Your task to perform on an android device: toggle show notifications on the lock screen Image 0: 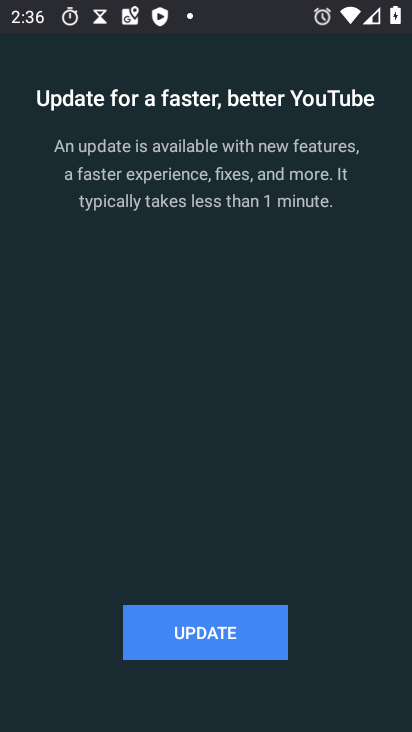
Step 0: press home button
Your task to perform on an android device: toggle show notifications on the lock screen Image 1: 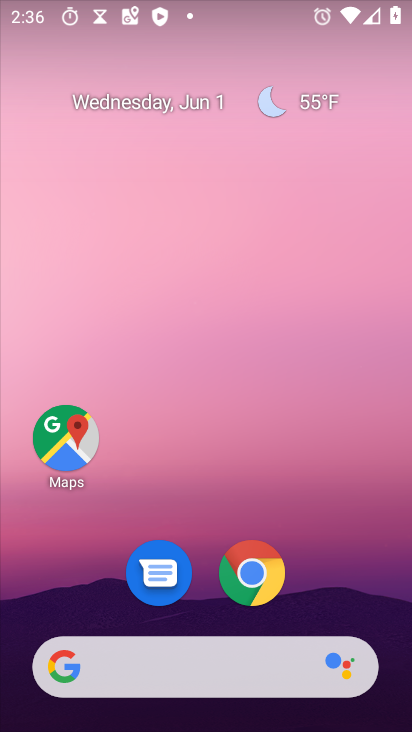
Step 1: drag from (316, 473) to (297, 21)
Your task to perform on an android device: toggle show notifications on the lock screen Image 2: 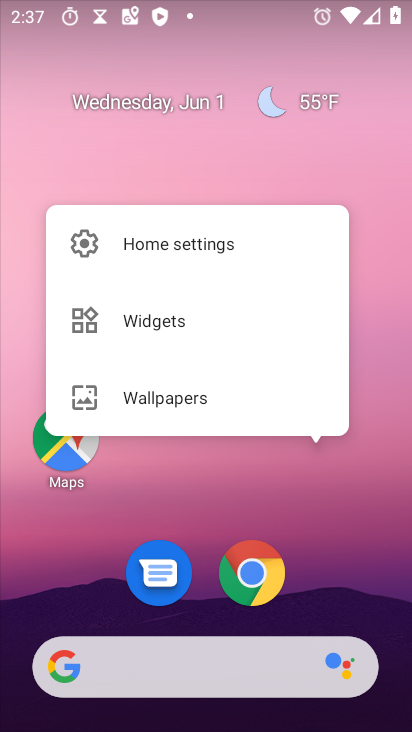
Step 2: click (333, 464)
Your task to perform on an android device: toggle show notifications on the lock screen Image 3: 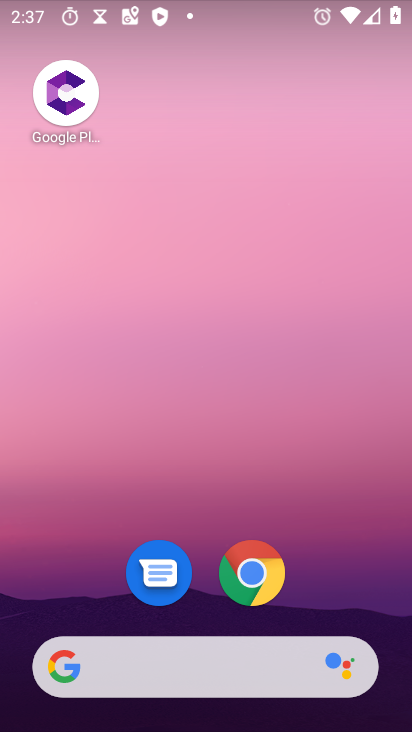
Step 3: drag from (357, 571) to (365, 62)
Your task to perform on an android device: toggle show notifications on the lock screen Image 4: 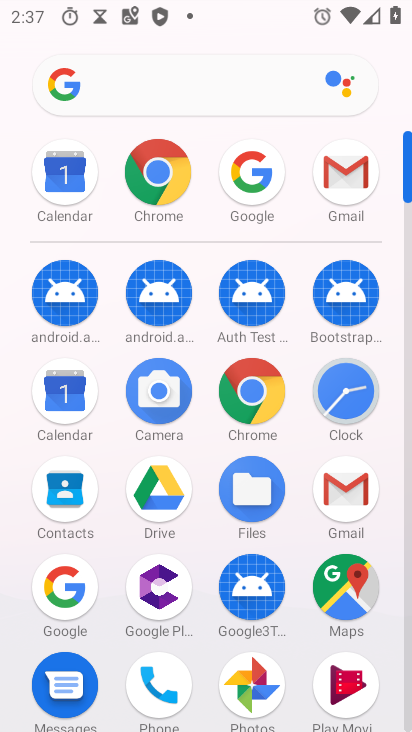
Step 4: drag from (376, 372) to (409, 146)
Your task to perform on an android device: toggle show notifications on the lock screen Image 5: 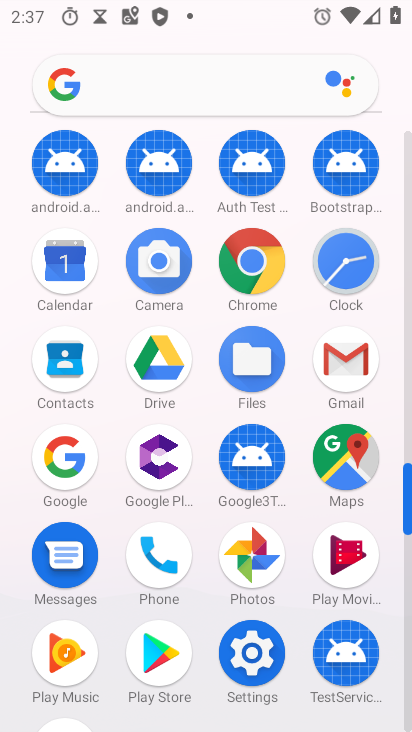
Step 5: click (273, 707)
Your task to perform on an android device: toggle show notifications on the lock screen Image 6: 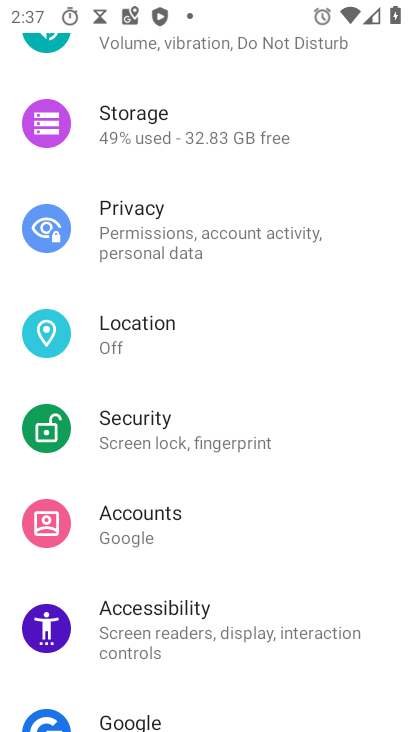
Step 6: drag from (182, 319) to (262, 606)
Your task to perform on an android device: toggle show notifications on the lock screen Image 7: 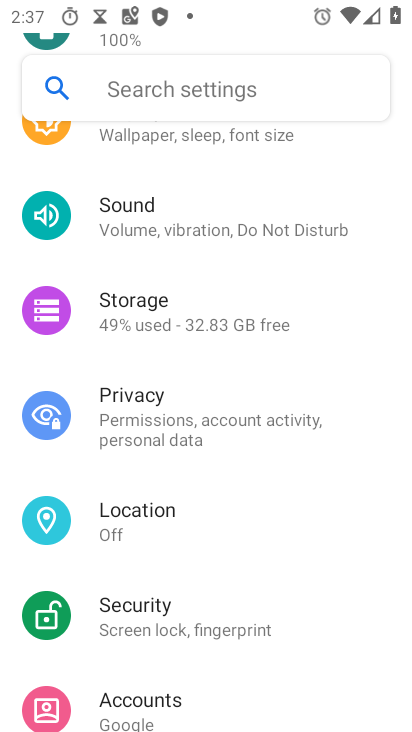
Step 7: drag from (226, 158) to (253, 641)
Your task to perform on an android device: toggle show notifications on the lock screen Image 8: 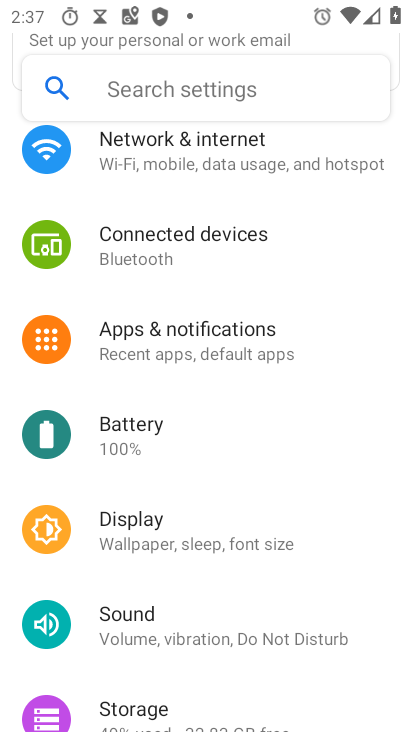
Step 8: click (235, 329)
Your task to perform on an android device: toggle show notifications on the lock screen Image 9: 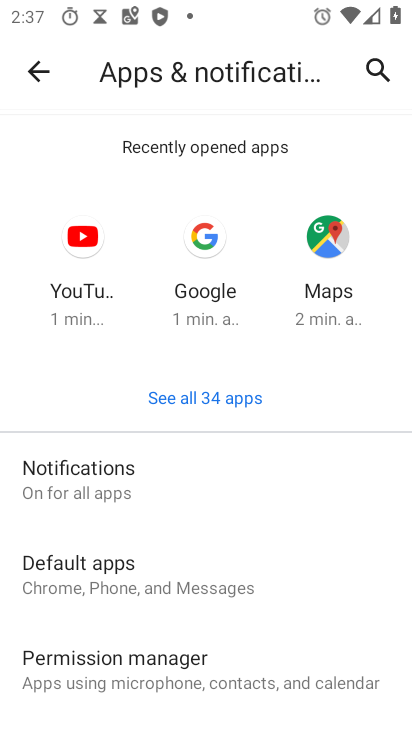
Step 9: click (99, 485)
Your task to perform on an android device: toggle show notifications on the lock screen Image 10: 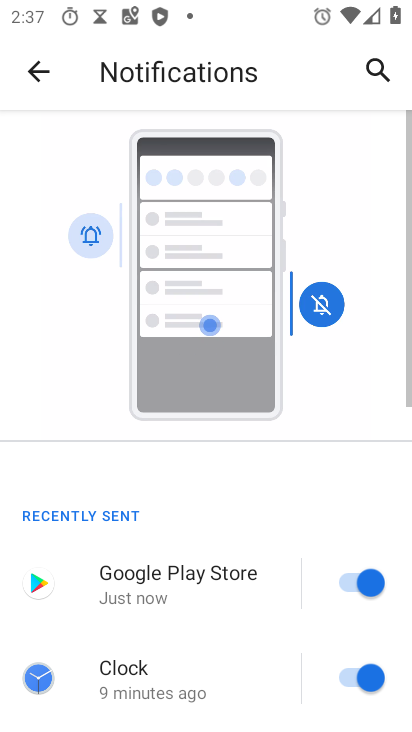
Step 10: drag from (229, 694) to (266, 230)
Your task to perform on an android device: toggle show notifications on the lock screen Image 11: 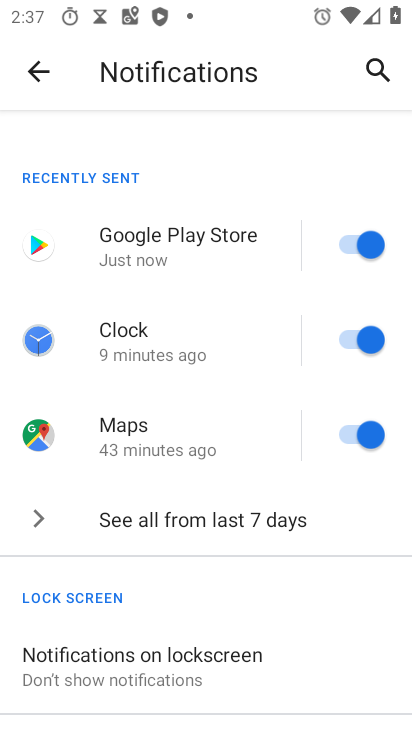
Step 11: drag from (190, 615) to (232, 189)
Your task to perform on an android device: toggle show notifications on the lock screen Image 12: 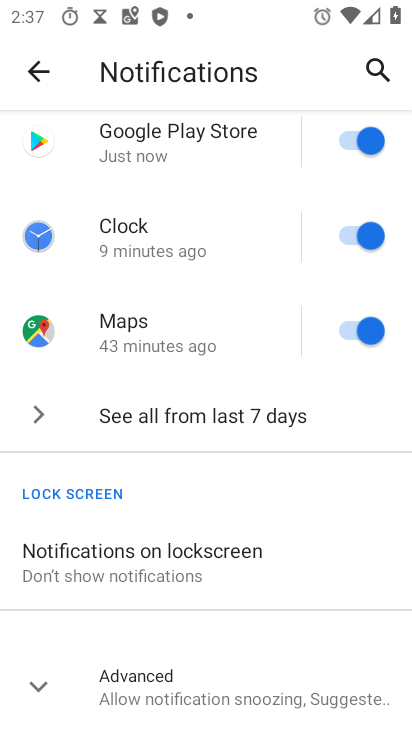
Step 12: click (155, 582)
Your task to perform on an android device: toggle show notifications on the lock screen Image 13: 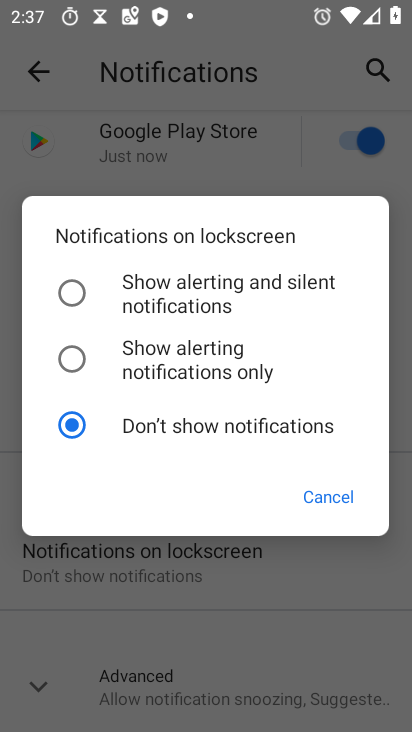
Step 13: click (64, 357)
Your task to perform on an android device: toggle show notifications on the lock screen Image 14: 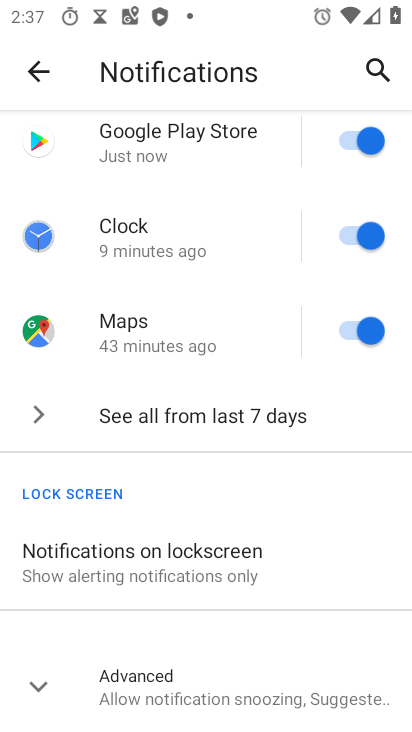
Step 14: task complete